Your task to perform on an android device: install app "Adobe Acrobat Reader" Image 0: 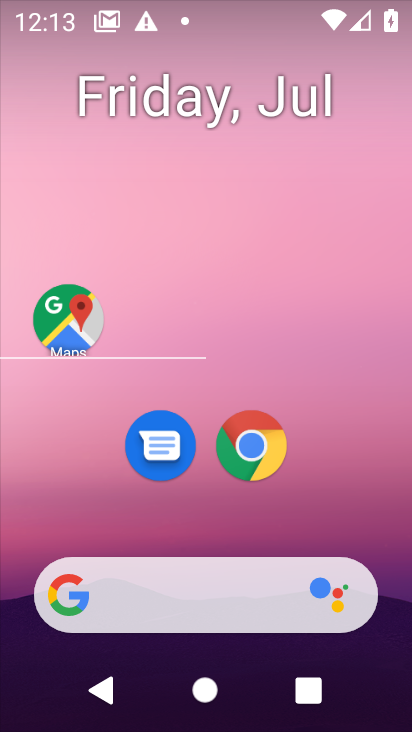
Step 0: click (192, 3)
Your task to perform on an android device: install app "Adobe Acrobat Reader" Image 1: 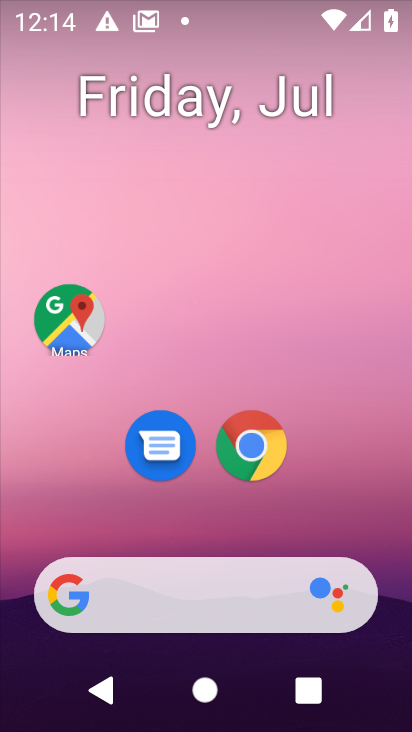
Step 1: drag from (190, 542) to (183, 7)
Your task to perform on an android device: install app "Adobe Acrobat Reader" Image 2: 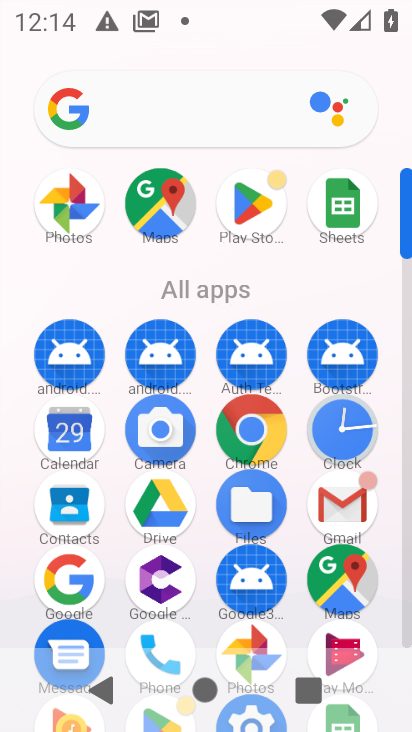
Step 2: click (251, 211)
Your task to perform on an android device: install app "Adobe Acrobat Reader" Image 3: 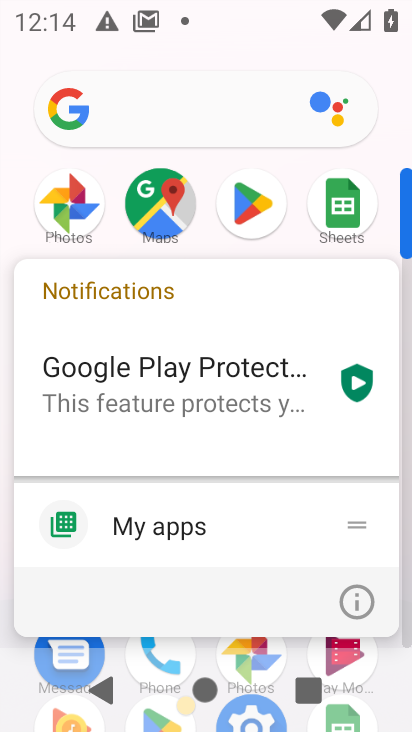
Step 3: click (251, 211)
Your task to perform on an android device: install app "Adobe Acrobat Reader" Image 4: 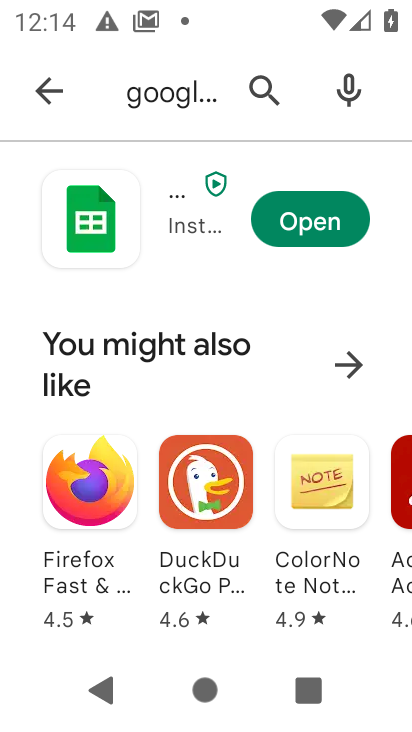
Step 4: click (150, 107)
Your task to perform on an android device: install app "Adobe Acrobat Reader" Image 5: 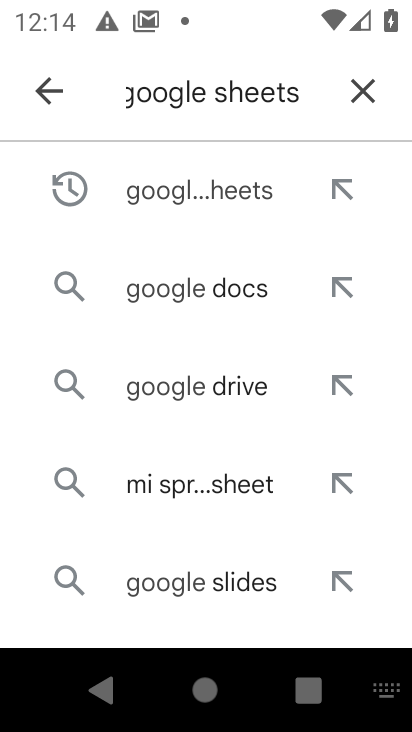
Step 5: click (367, 94)
Your task to perform on an android device: install app "Adobe Acrobat Reader" Image 6: 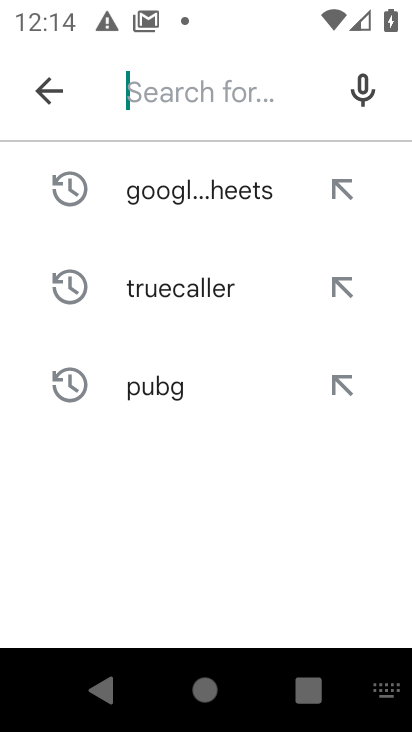
Step 6: type "Adobe Acrobat Reader"
Your task to perform on an android device: install app "Adobe Acrobat Reader" Image 7: 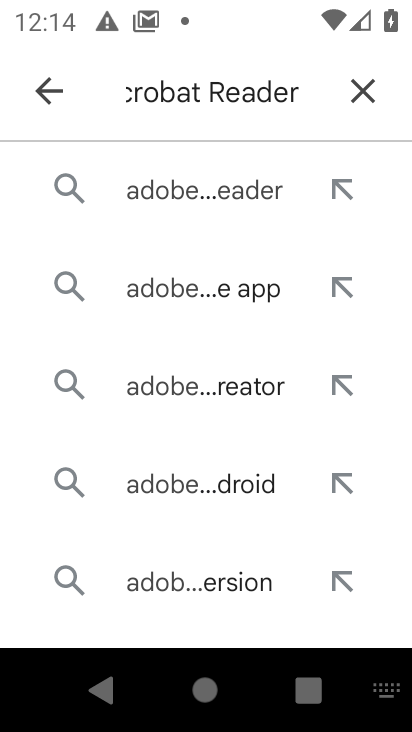
Step 7: click (183, 192)
Your task to perform on an android device: install app "Adobe Acrobat Reader" Image 8: 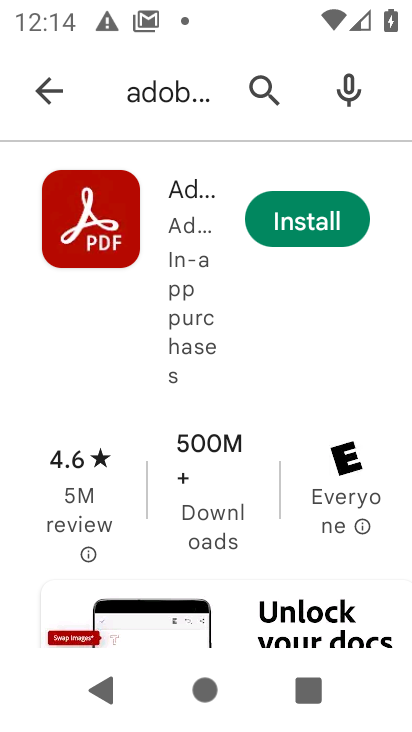
Step 8: click (300, 228)
Your task to perform on an android device: install app "Adobe Acrobat Reader" Image 9: 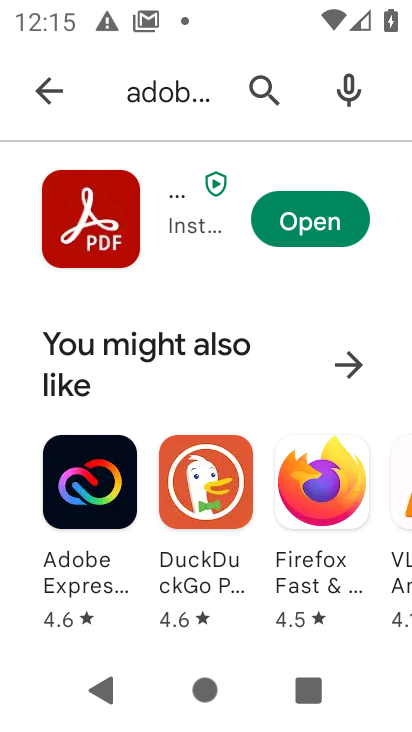
Step 9: task complete